Your task to perform on an android device: find snoozed emails in the gmail app Image 0: 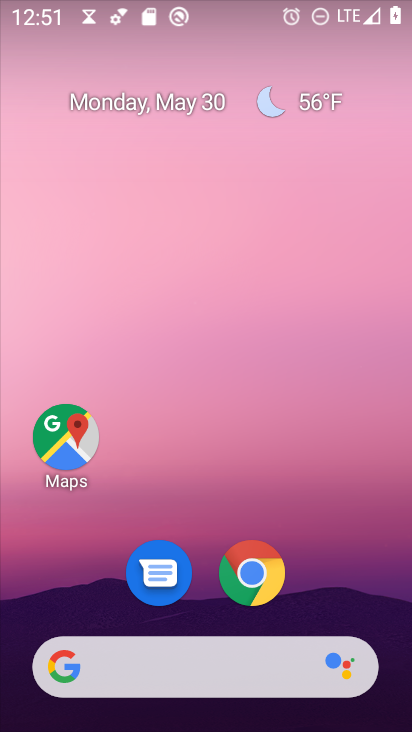
Step 0: drag from (256, 649) to (269, 18)
Your task to perform on an android device: find snoozed emails in the gmail app Image 1: 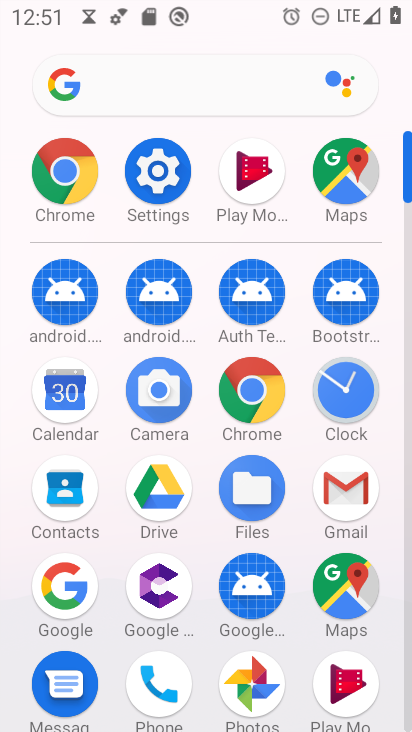
Step 1: click (346, 493)
Your task to perform on an android device: find snoozed emails in the gmail app Image 2: 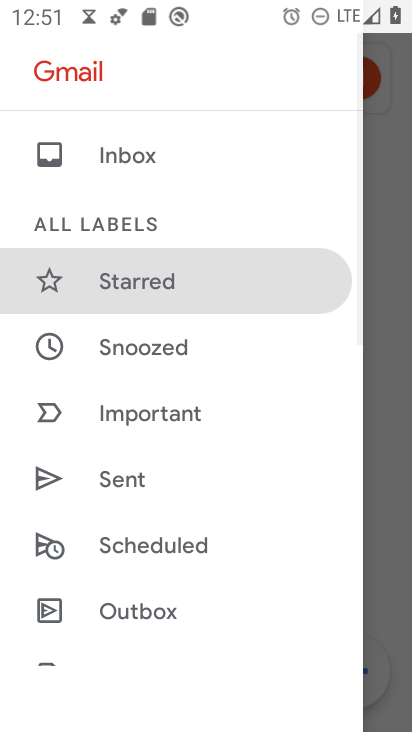
Step 2: click (217, 359)
Your task to perform on an android device: find snoozed emails in the gmail app Image 3: 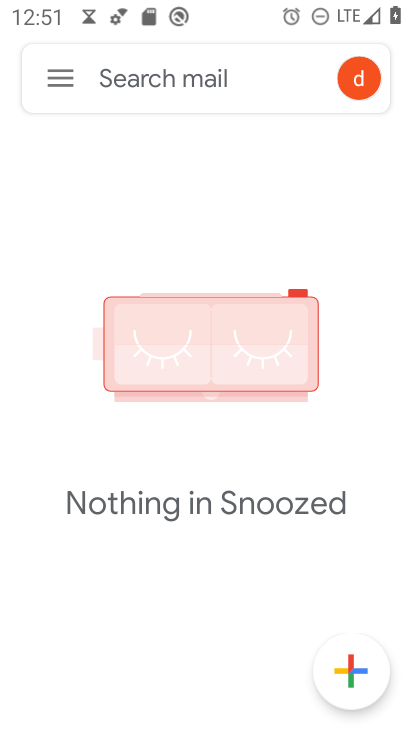
Step 3: task complete